Your task to perform on an android device: Open settings Image 0: 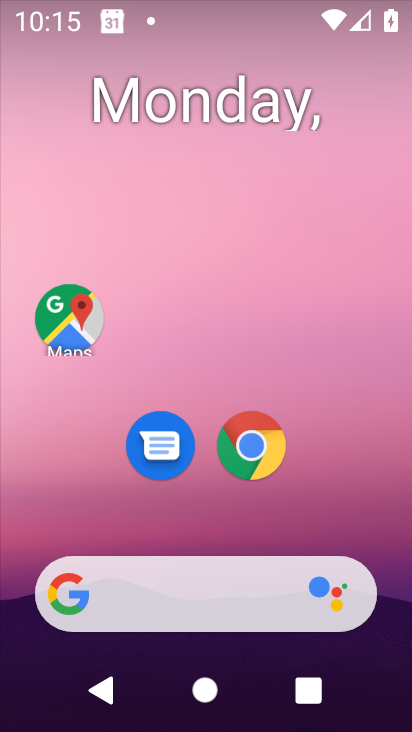
Step 0: drag from (253, 613) to (310, 180)
Your task to perform on an android device: Open settings Image 1: 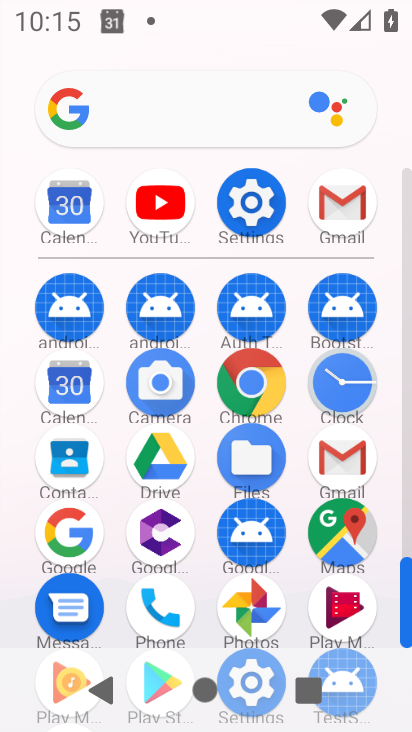
Step 1: click (252, 194)
Your task to perform on an android device: Open settings Image 2: 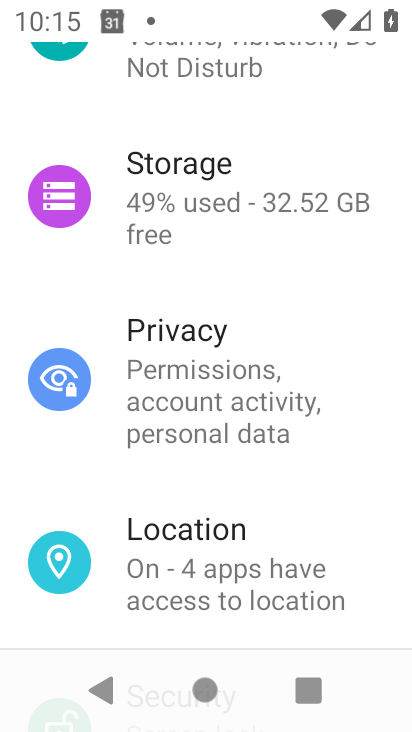
Step 2: task complete